Your task to perform on an android device: Open the map Image 0: 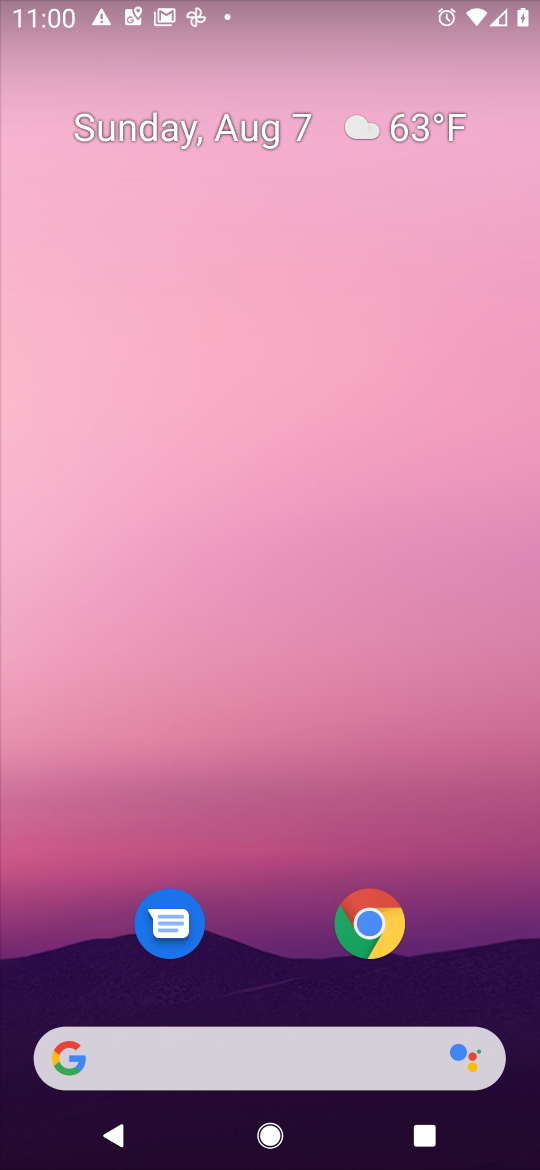
Step 0: drag from (475, 879) to (243, 25)
Your task to perform on an android device: Open the map Image 1: 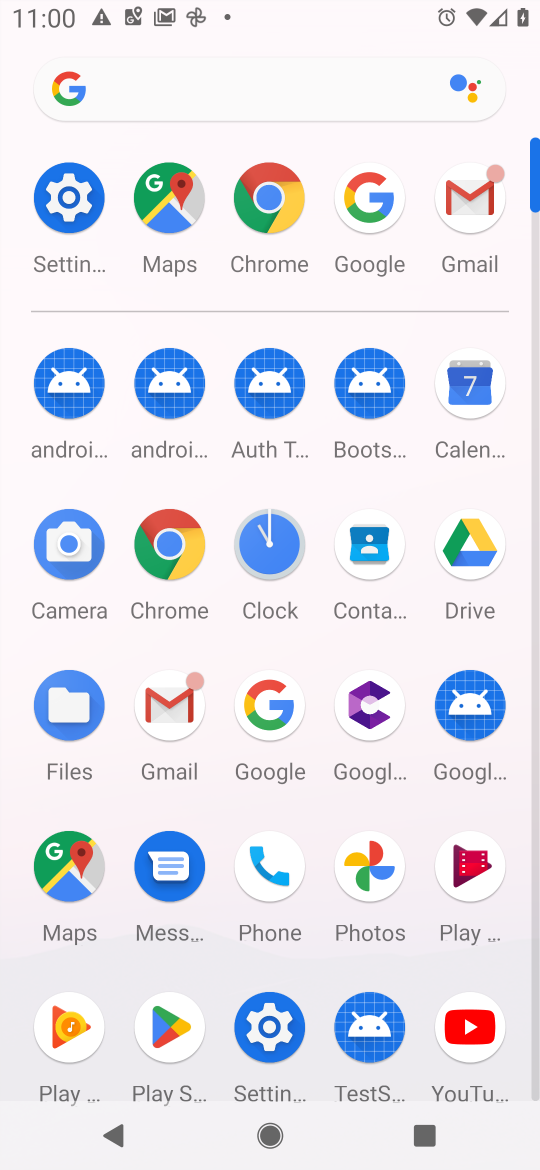
Step 1: click (75, 849)
Your task to perform on an android device: Open the map Image 2: 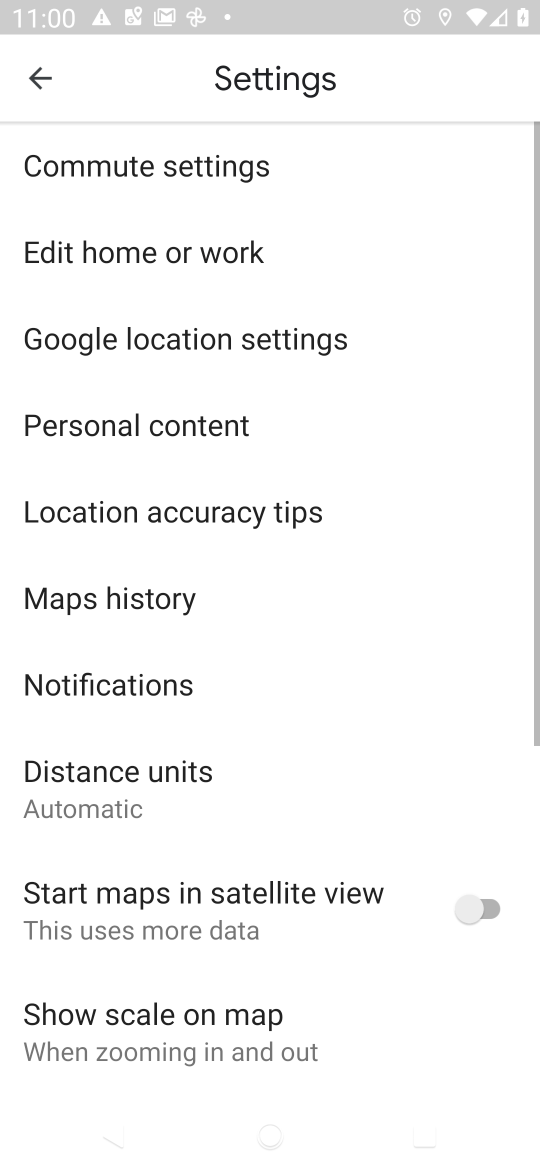
Step 2: press home button
Your task to perform on an android device: Open the map Image 3: 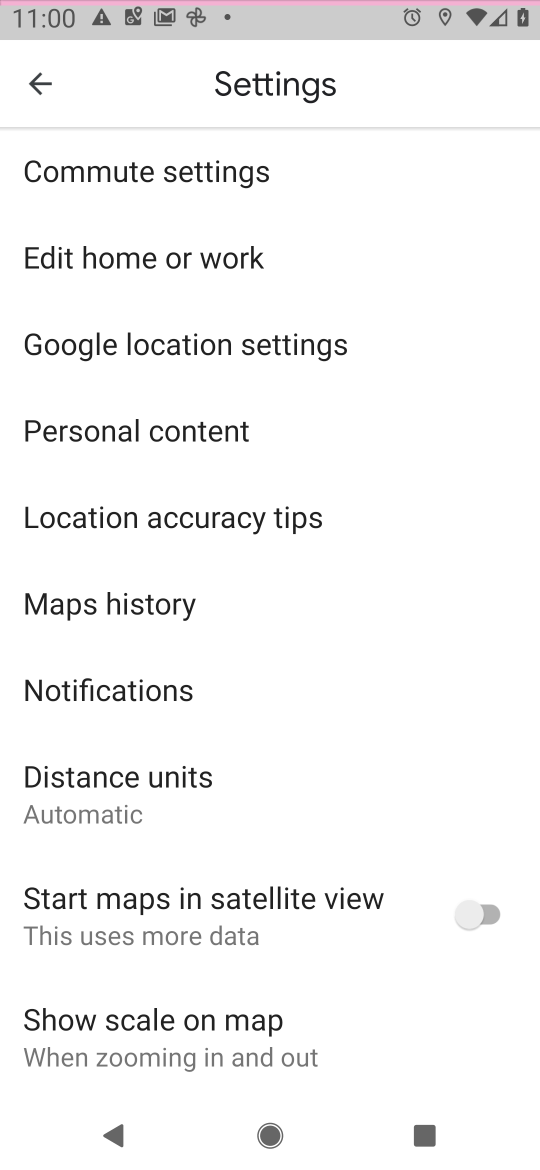
Step 3: drag from (463, 1081) to (157, 3)
Your task to perform on an android device: Open the map Image 4: 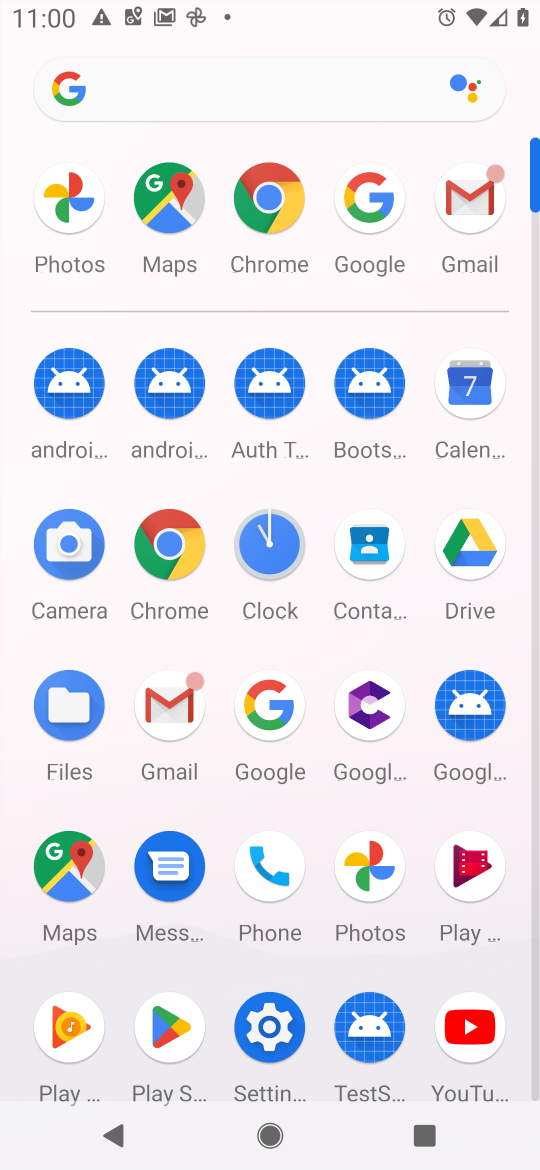
Step 4: click (71, 838)
Your task to perform on an android device: Open the map Image 5: 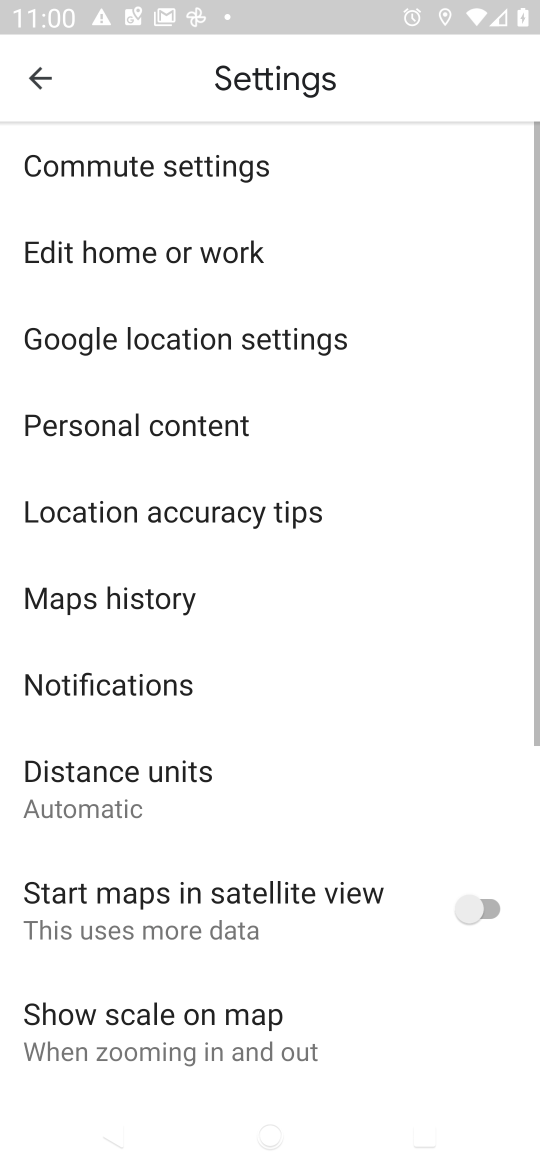
Step 5: task complete